Your task to perform on an android device: toggle show notifications on the lock screen Image 0: 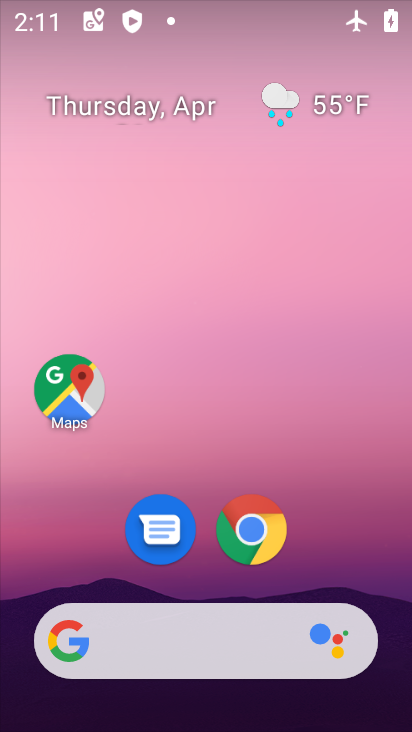
Step 0: drag from (216, 480) to (184, 129)
Your task to perform on an android device: toggle show notifications on the lock screen Image 1: 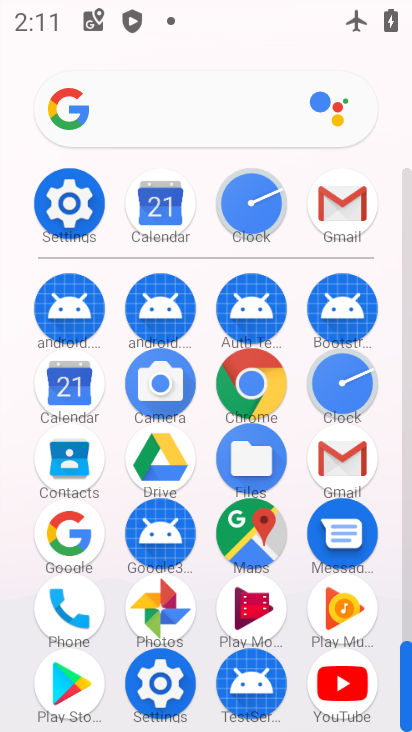
Step 1: click (72, 219)
Your task to perform on an android device: toggle show notifications on the lock screen Image 2: 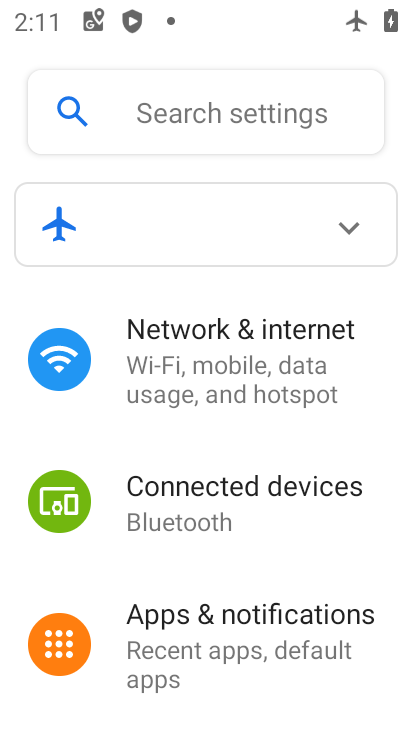
Step 2: drag from (227, 575) to (180, 309)
Your task to perform on an android device: toggle show notifications on the lock screen Image 3: 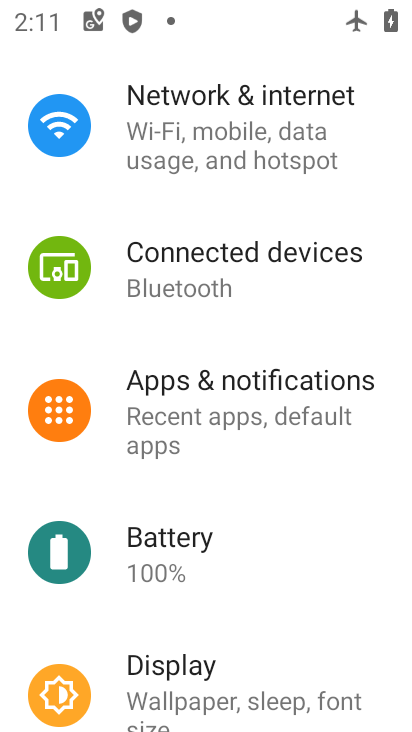
Step 3: click (224, 414)
Your task to perform on an android device: toggle show notifications on the lock screen Image 4: 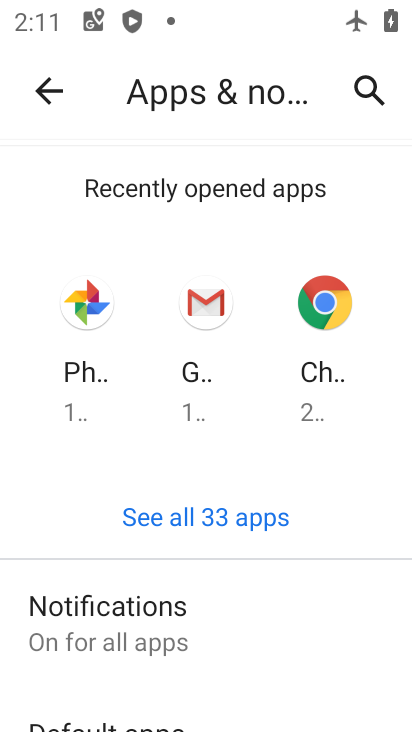
Step 4: click (219, 621)
Your task to perform on an android device: toggle show notifications on the lock screen Image 5: 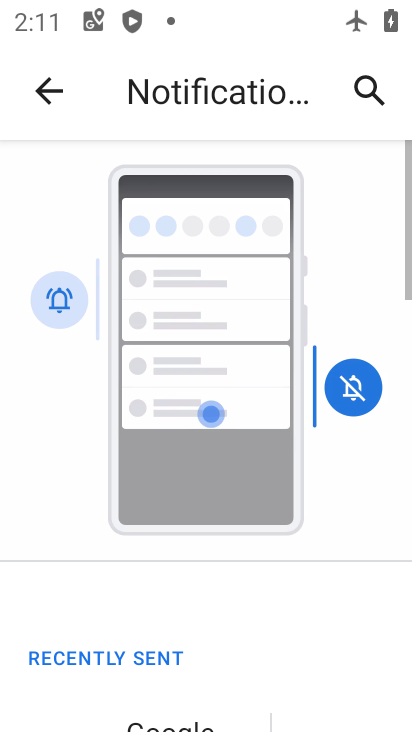
Step 5: drag from (215, 604) to (136, 212)
Your task to perform on an android device: toggle show notifications on the lock screen Image 6: 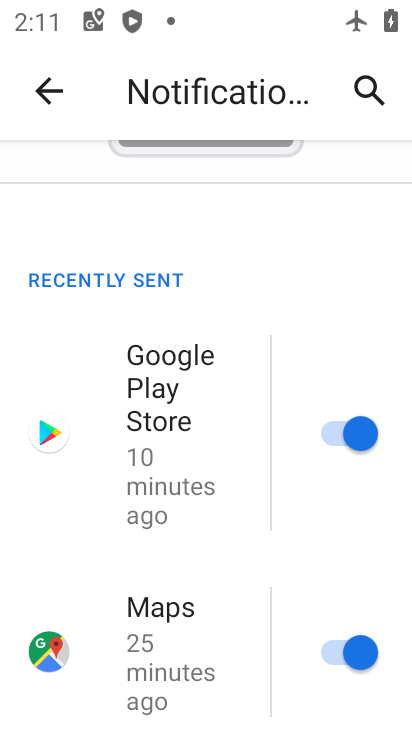
Step 6: drag from (228, 577) to (182, 289)
Your task to perform on an android device: toggle show notifications on the lock screen Image 7: 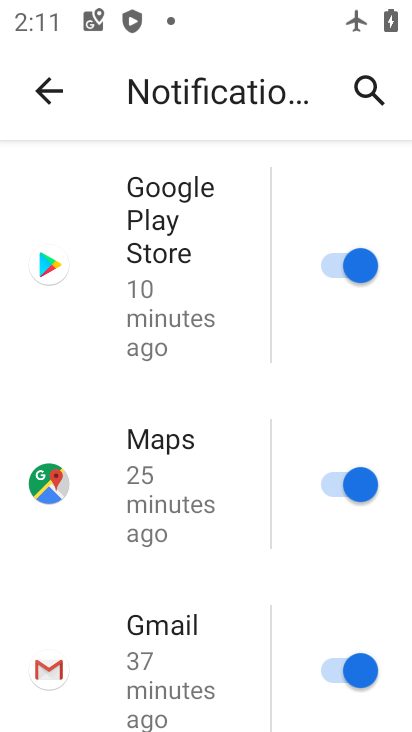
Step 7: drag from (223, 565) to (204, 262)
Your task to perform on an android device: toggle show notifications on the lock screen Image 8: 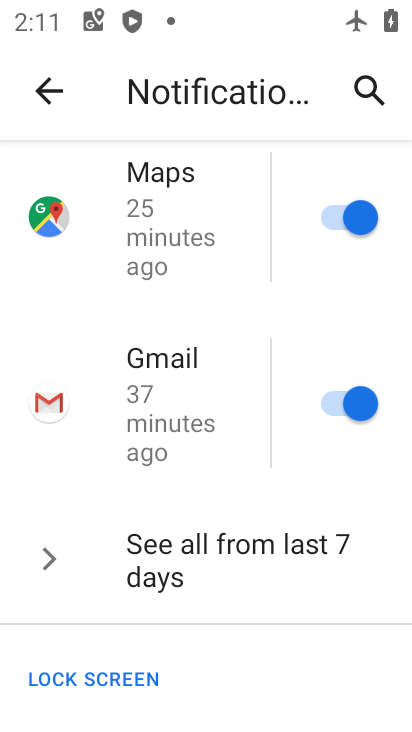
Step 8: drag from (196, 500) to (147, 220)
Your task to perform on an android device: toggle show notifications on the lock screen Image 9: 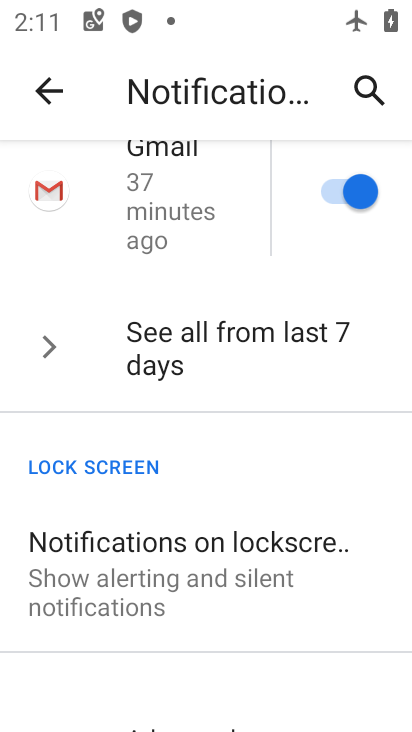
Step 9: click (183, 597)
Your task to perform on an android device: toggle show notifications on the lock screen Image 10: 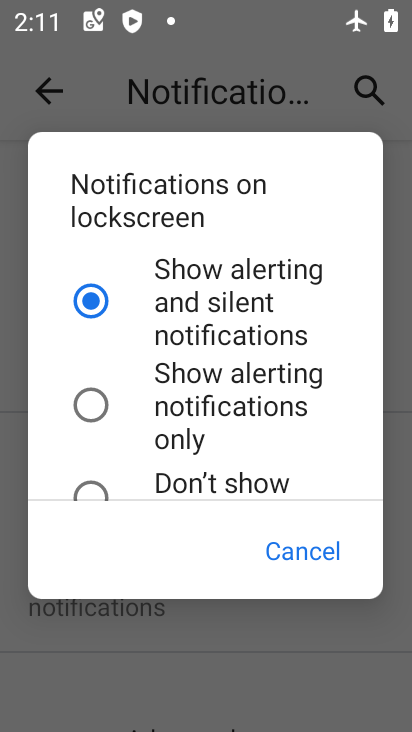
Step 10: task complete